Your task to perform on an android device: add a contact Image 0: 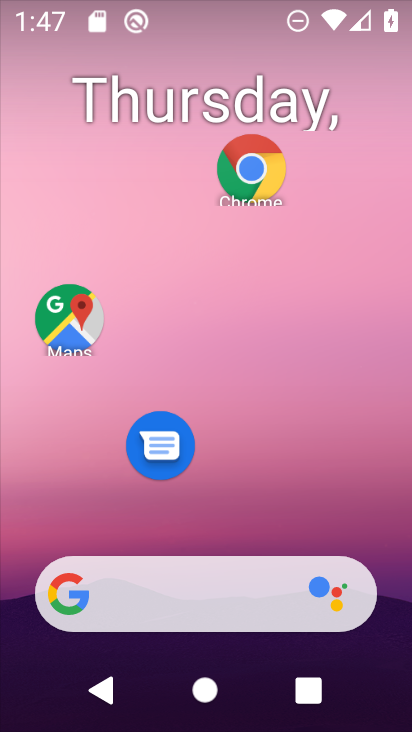
Step 0: drag from (238, 625) to (299, 236)
Your task to perform on an android device: add a contact Image 1: 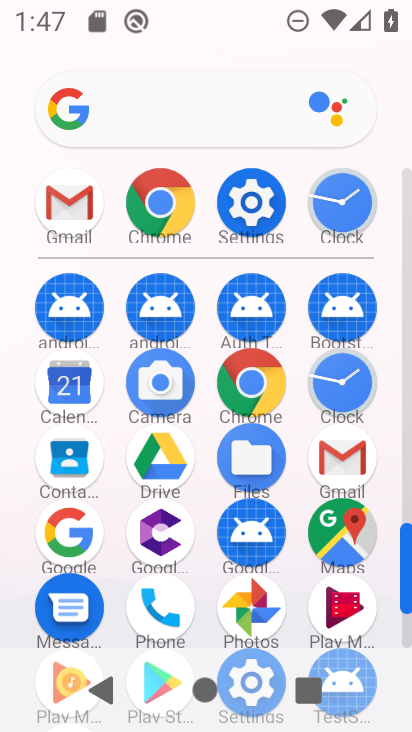
Step 1: click (161, 595)
Your task to perform on an android device: add a contact Image 2: 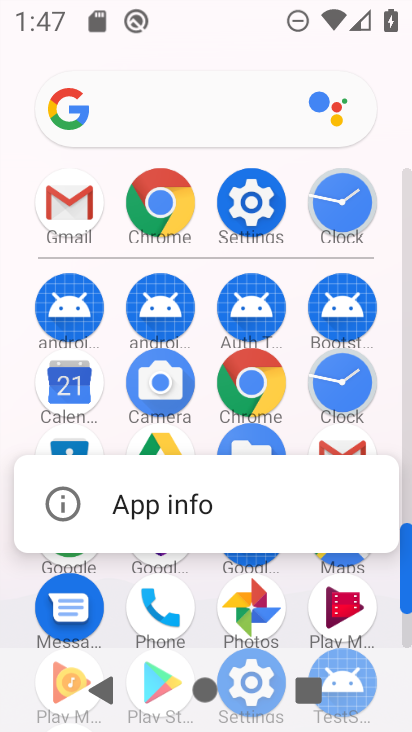
Step 2: click (161, 597)
Your task to perform on an android device: add a contact Image 3: 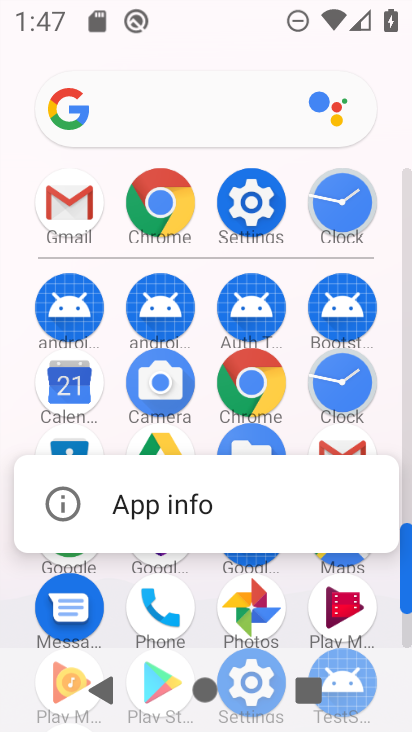
Step 3: click (161, 597)
Your task to perform on an android device: add a contact Image 4: 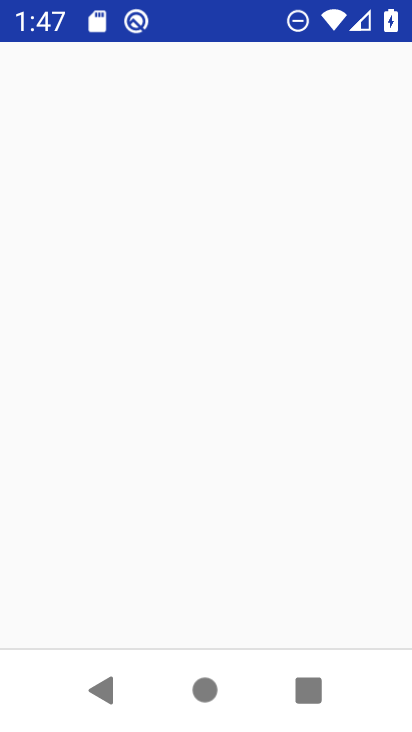
Step 4: drag from (162, 587) to (227, 360)
Your task to perform on an android device: add a contact Image 5: 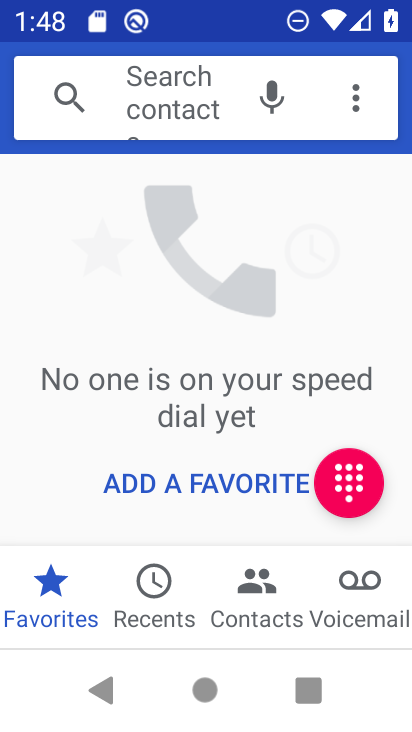
Step 5: click (264, 598)
Your task to perform on an android device: add a contact Image 6: 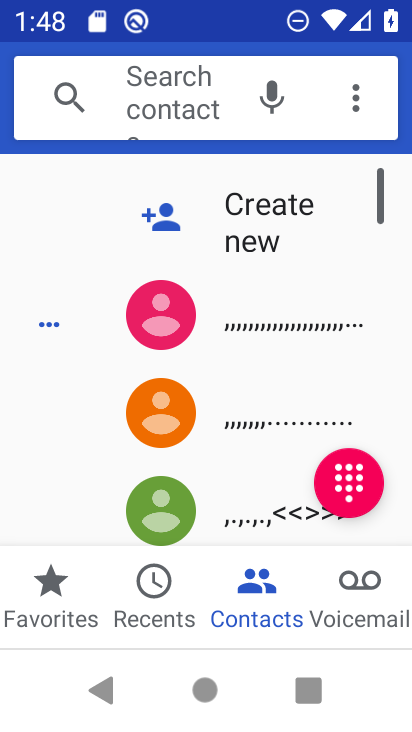
Step 6: click (250, 204)
Your task to perform on an android device: add a contact Image 7: 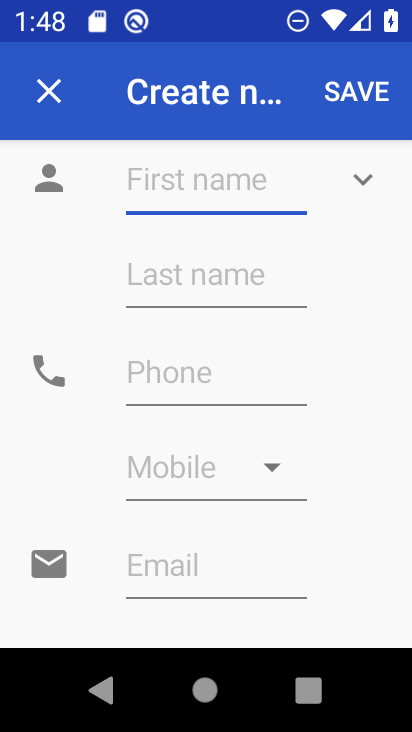
Step 7: click (380, 679)
Your task to perform on an android device: add a contact Image 8: 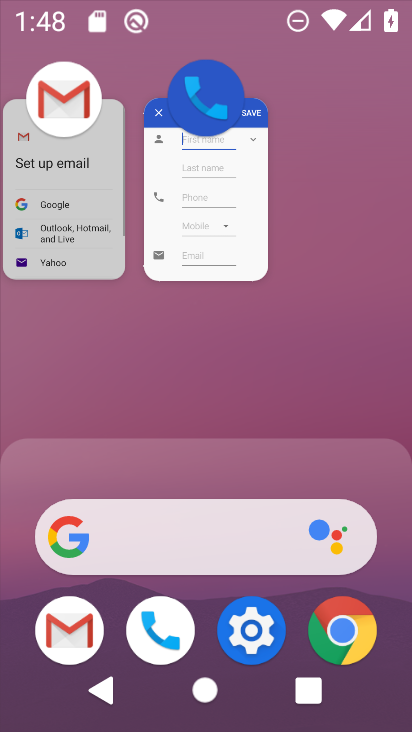
Step 8: click (189, 177)
Your task to perform on an android device: add a contact Image 9: 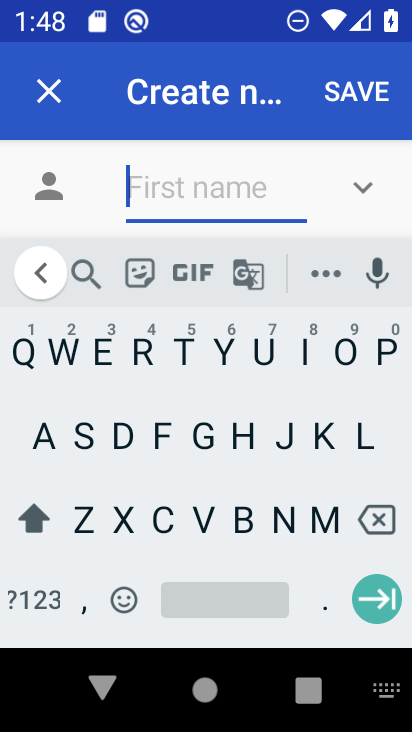
Step 9: click (382, 352)
Your task to perform on an android device: add a contact Image 10: 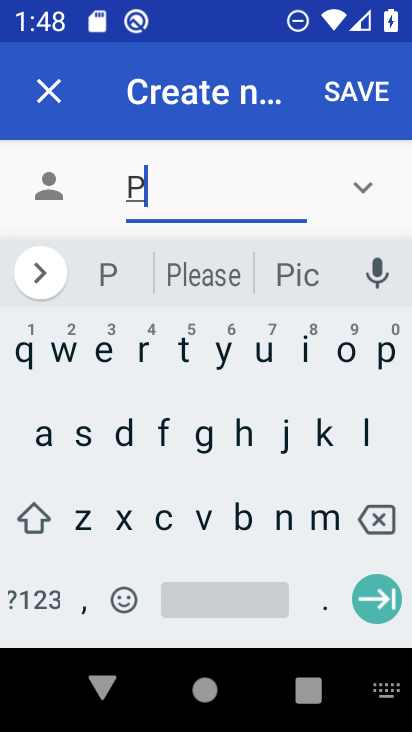
Step 10: click (48, 439)
Your task to perform on an android device: add a contact Image 11: 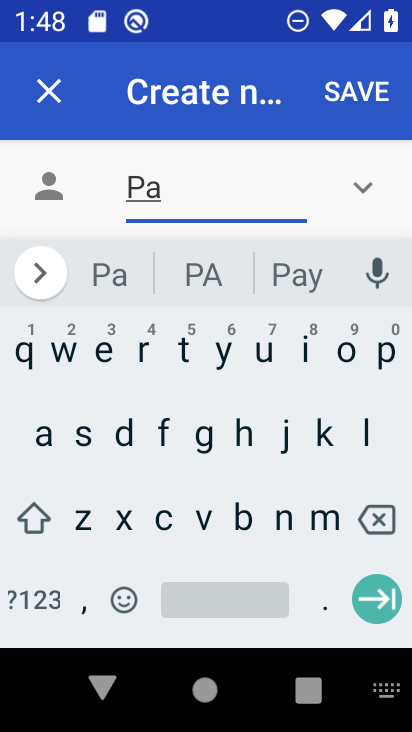
Step 11: click (62, 350)
Your task to perform on an android device: add a contact Image 12: 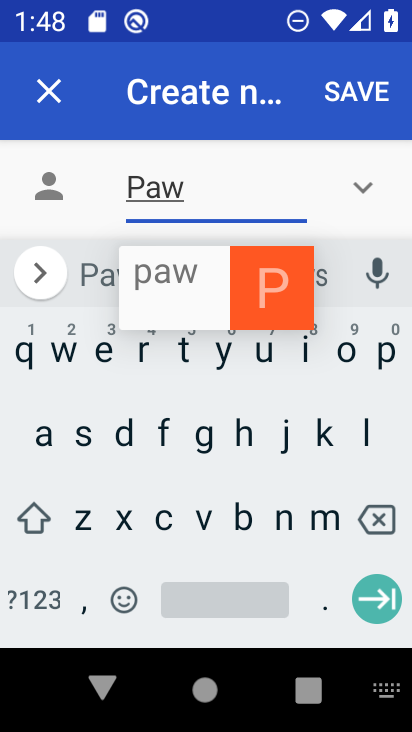
Step 12: click (47, 431)
Your task to perform on an android device: add a contact Image 13: 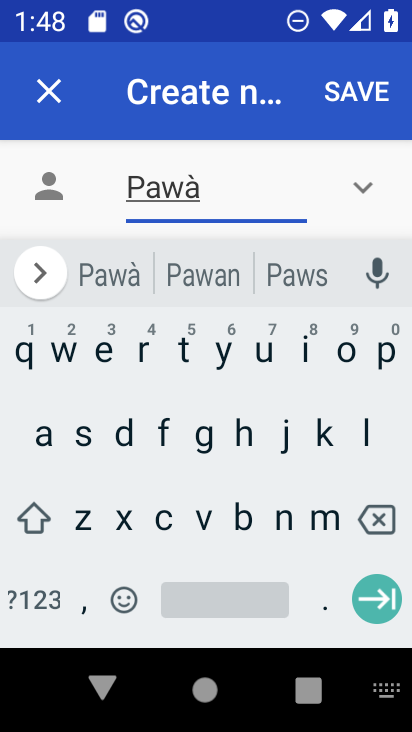
Step 13: click (281, 516)
Your task to perform on an android device: add a contact Image 14: 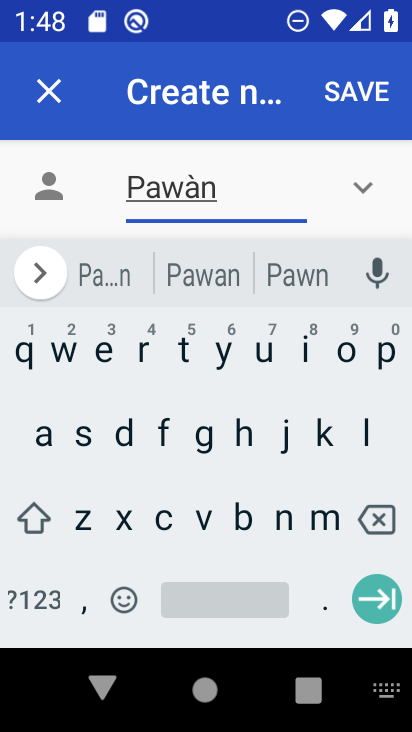
Step 14: drag from (310, 208) to (294, 108)
Your task to perform on an android device: add a contact Image 15: 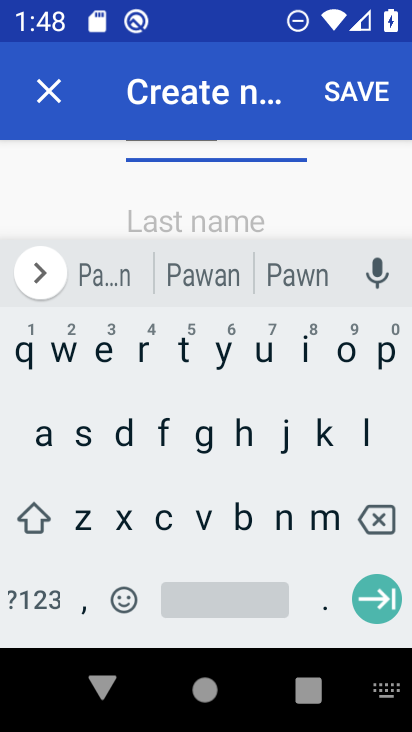
Step 15: drag from (218, 214) to (216, 109)
Your task to perform on an android device: add a contact Image 16: 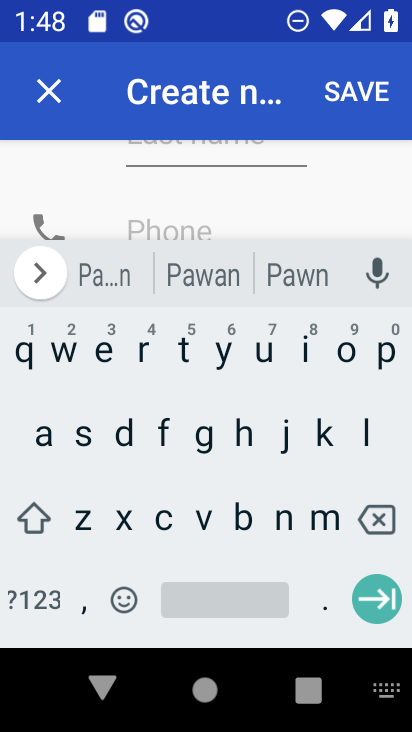
Step 16: click (150, 242)
Your task to perform on an android device: add a contact Image 17: 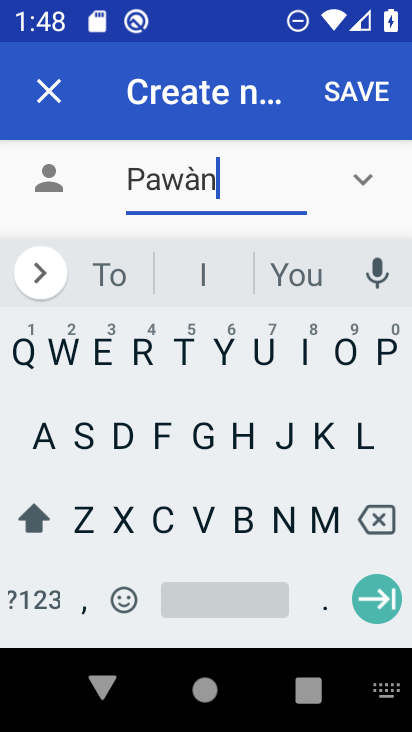
Step 17: drag from (350, 206) to (329, 150)
Your task to perform on an android device: add a contact Image 18: 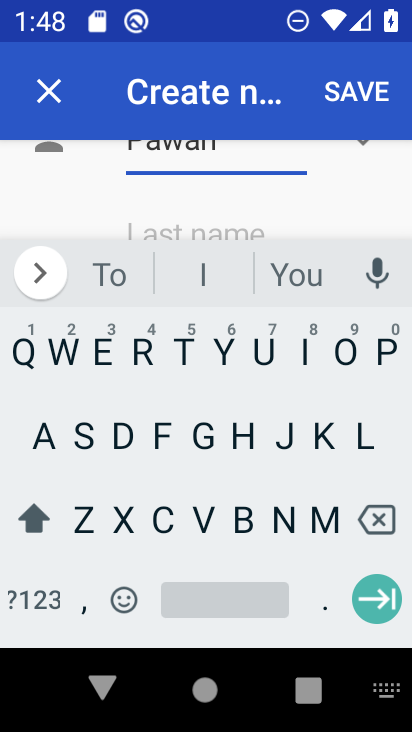
Step 18: drag from (324, 195) to (314, 139)
Your task to perform on an android device: add a contact Image 19: 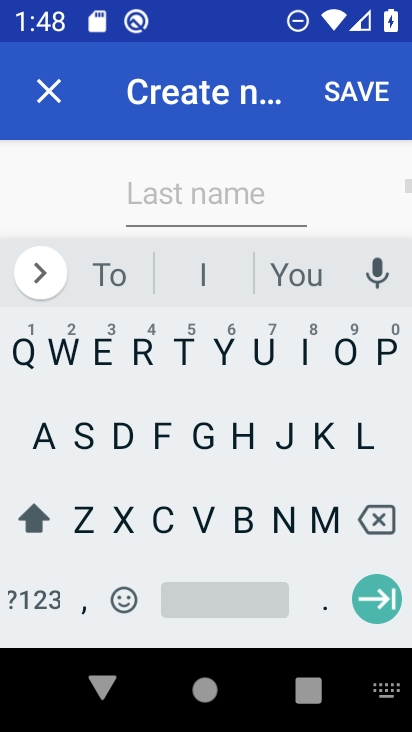
Step 19: drag from (316, 205) to (322, 122)
Your task to perform on an android device: add a contact Image 20: 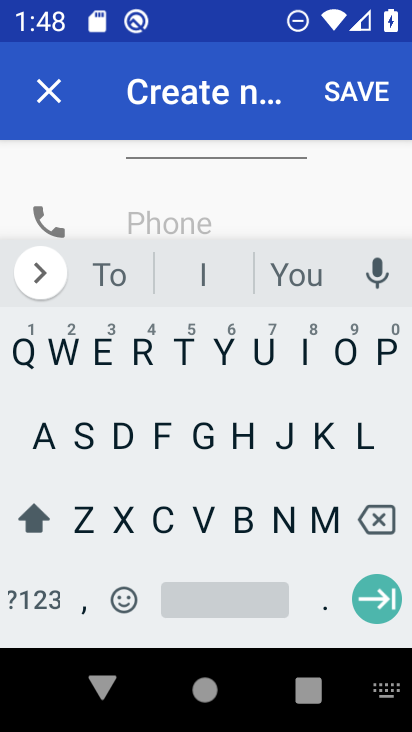
Step 20: click (217, 218)
Your task to perform on an android device: add a contact Image 21: 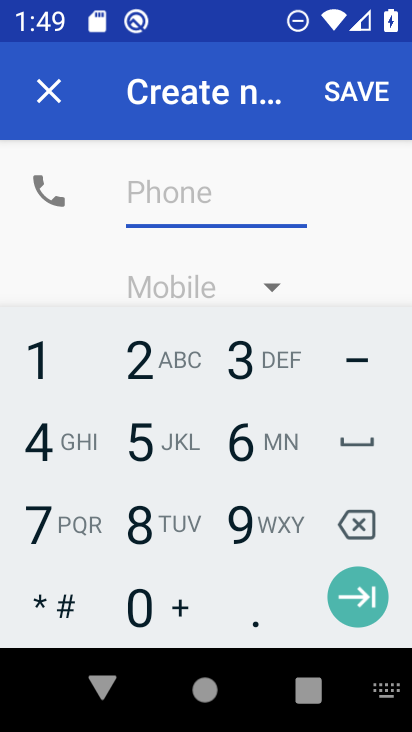
Step 21: click (239, 532)
Your task to perform on an android device: add a contact Image 22: 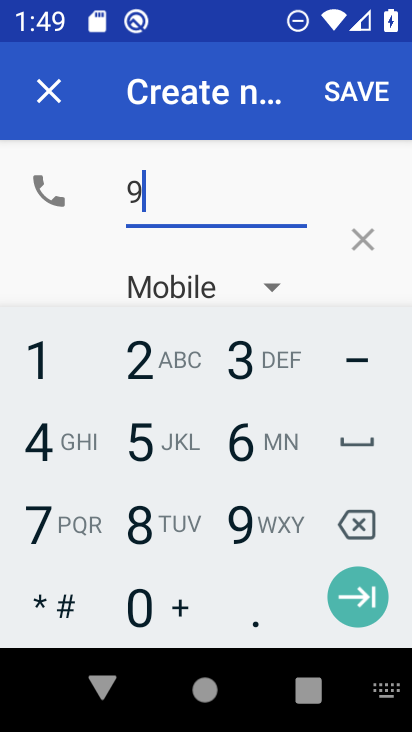
Step 22: click (242, 443)
Your task to perform on an android device: add a contact Image 23: 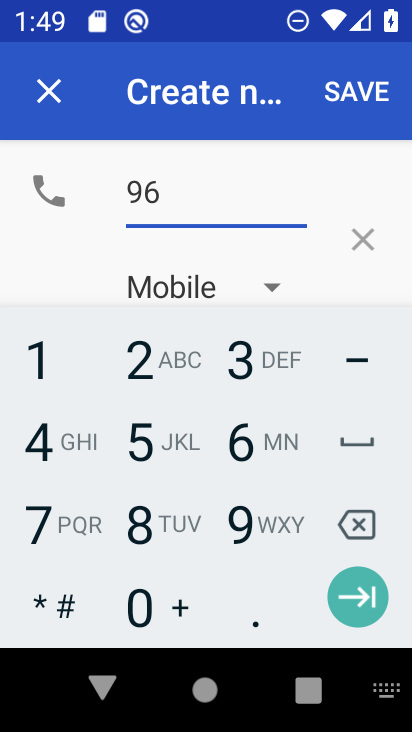
Step 23: click (248, 499)
Your task to perform on an android device: add a contact Image 24: 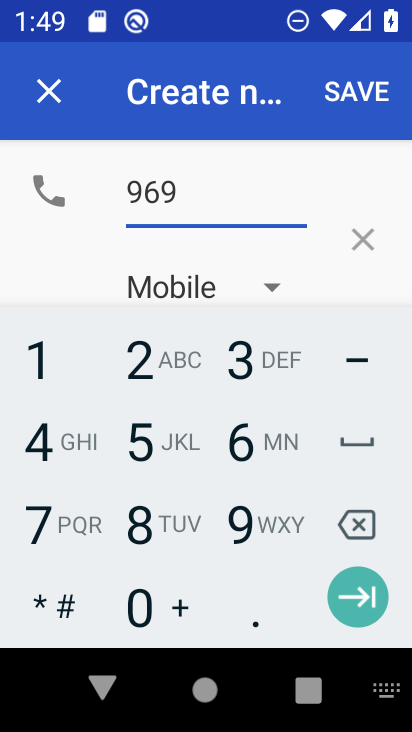
Step 24: click (156, 376)
Your task to perform on an android device: add a contact Image 25: 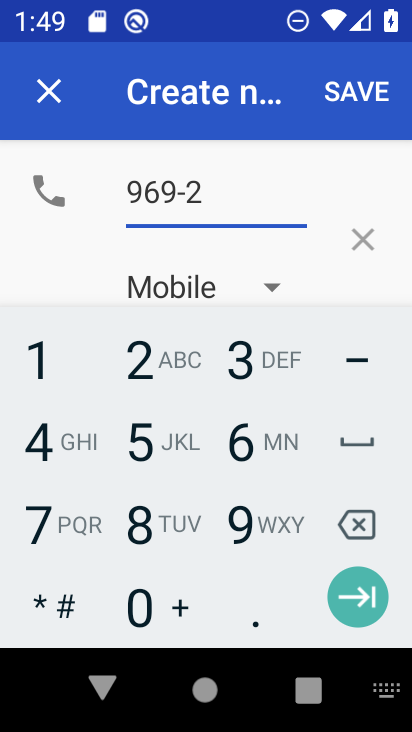
Step 25: click (84, 369)
Your task to perform on an android device: add a contact Image 26: 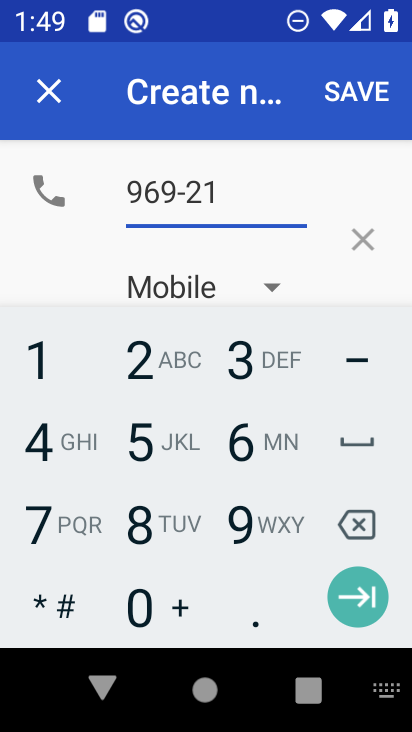
Step 26: click (231, 367)
Your task to perform on an android device: add a contact Image 27: 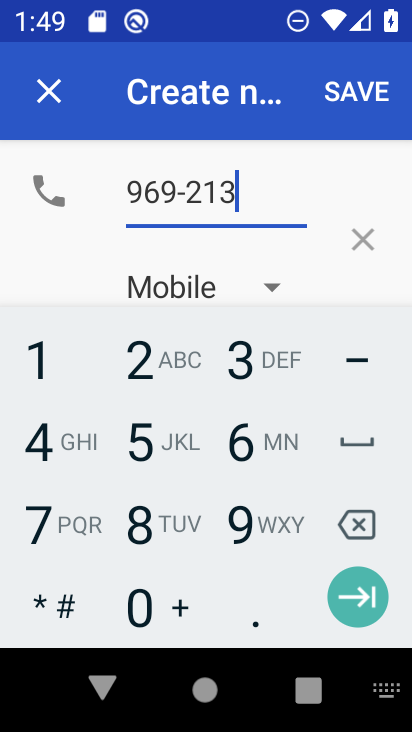
Step 27: click (167, 381)
Your task to perform on an android device: add a contact Image 28: 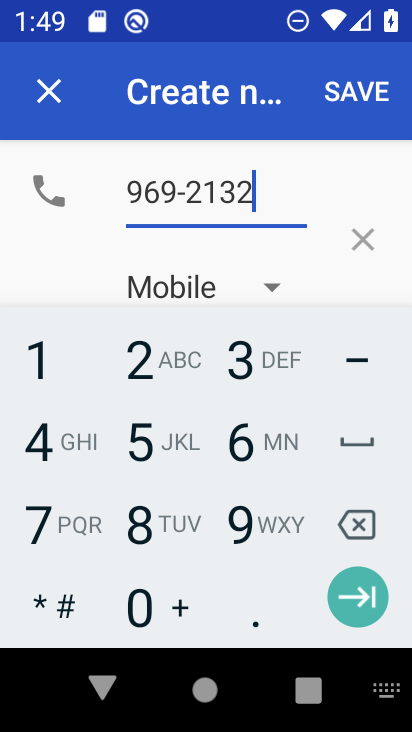
Step 28: click (153, 452)
Your task to perform on an android device: add a contact Image 29: 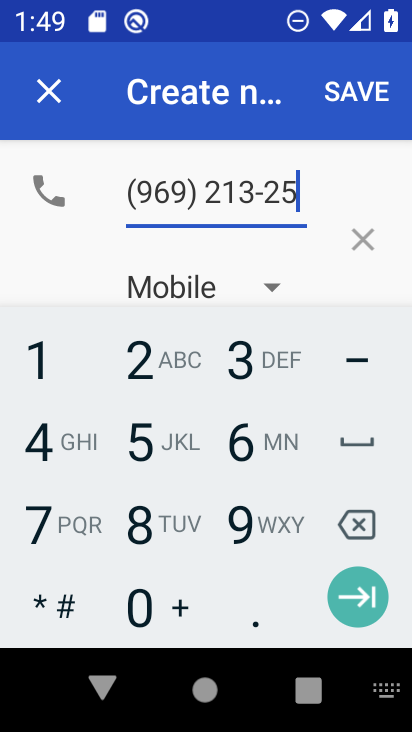
Step 29: click (227, 454)
Your task to perform on an android device: add a contact Image 30: 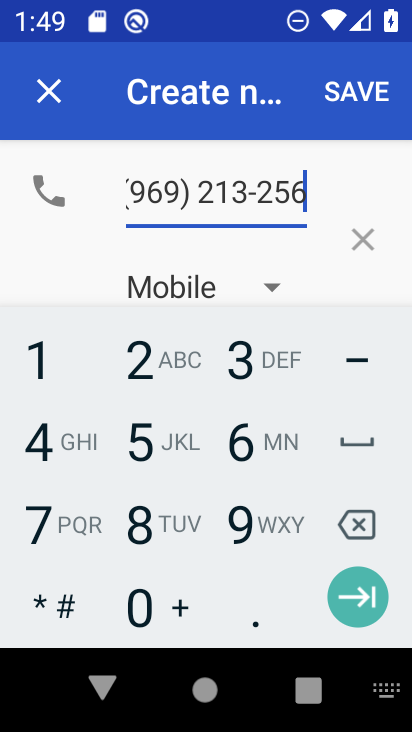
Step 30: click (54, 441)
Your task to perform on an android device: add a contact Image 31: 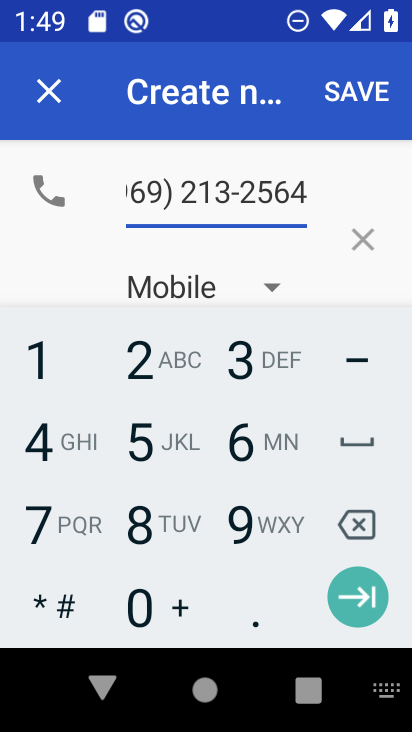
Step 31: click (336, 98)
Your task to perform on an android device: add a contact Image 32: 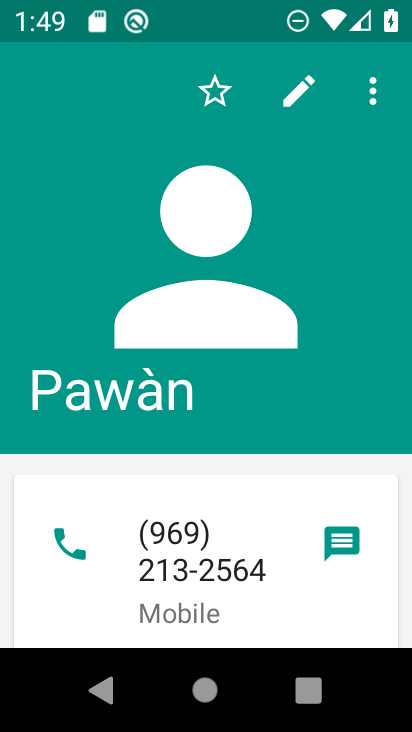
Step 32: task complete